Your task to perform on an android device: Search for razer huntsman on amazon, select the first entry, add it to the cart, then select checkout. Image 0: 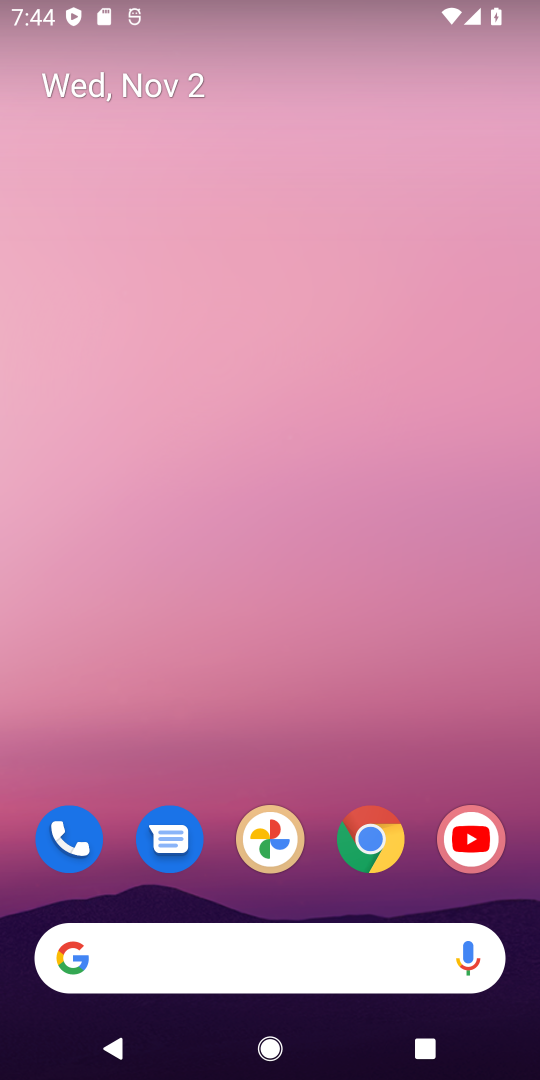
Step 0: click (370, 835)
Your task to perform on an android device: Search for razer huntsman on amazon, select the first entry, add it to the cart, then select checkout. Image 1: 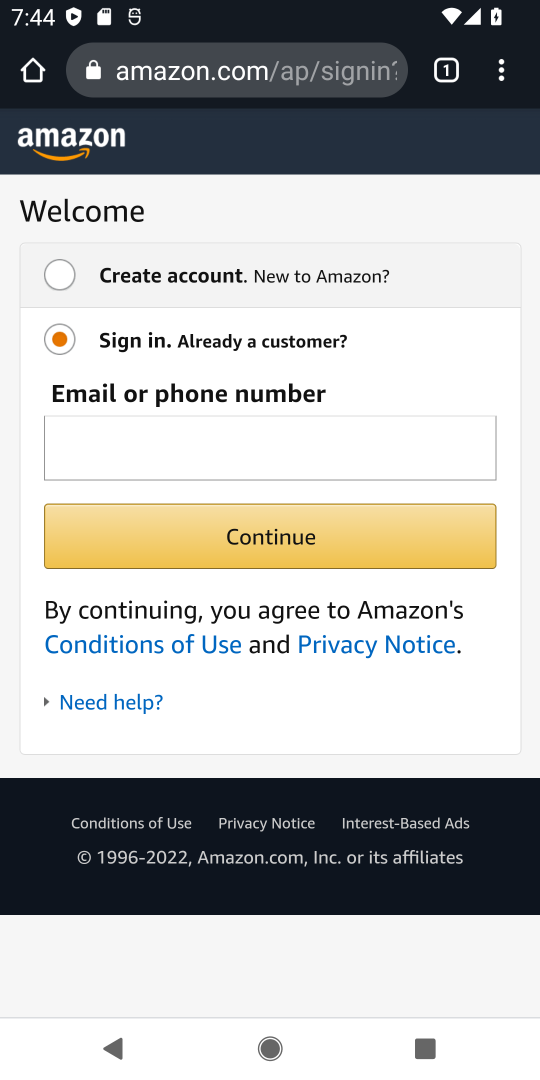
Step 1: press home button
Your task to perform on an android device: Search for razer huntsman on amazon, select the first entry, add it to the cart, then select checkout. Image 2: 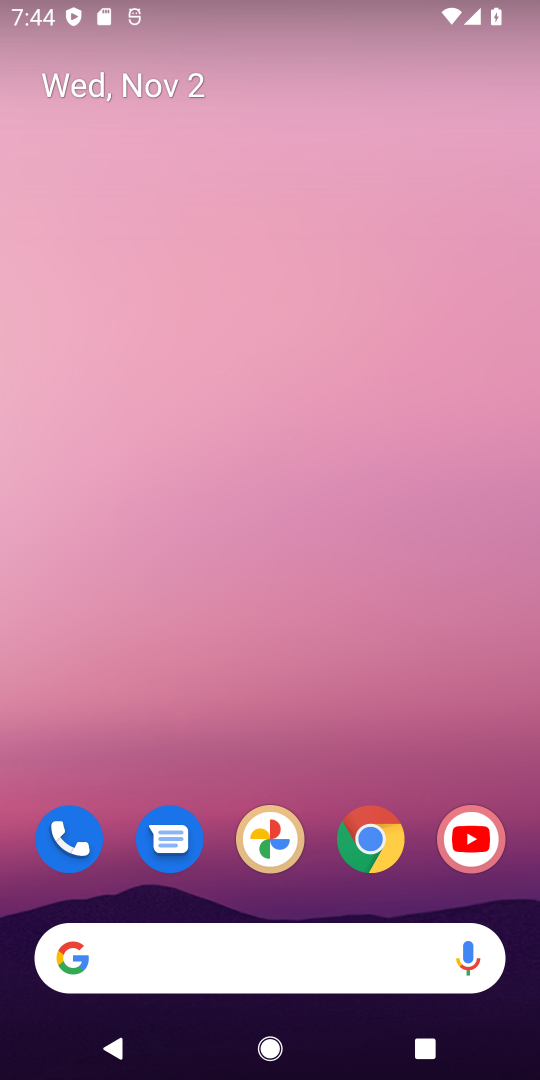
Step 2: click (375, 836)
Your task to perform on an android device: Search for razer huntsman on amazon, select the first entry, add it to the cart, then select checkout. Image 3: 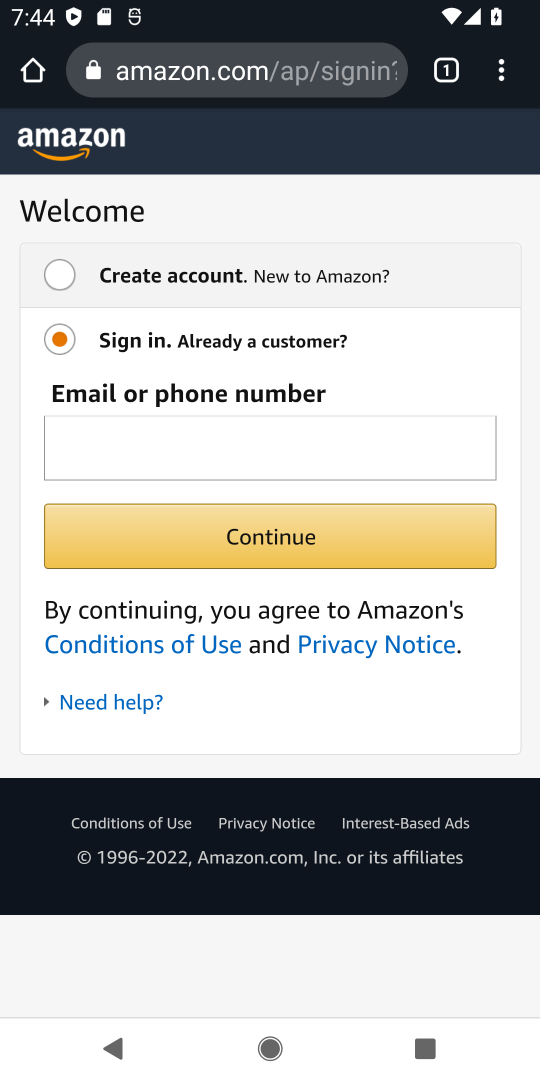
Step 3: click (356, 78)
Your task to perform on an android device: Search for razer huntsman on amazon, select the first entry, add it to the cart, then select checkout. Image 4: 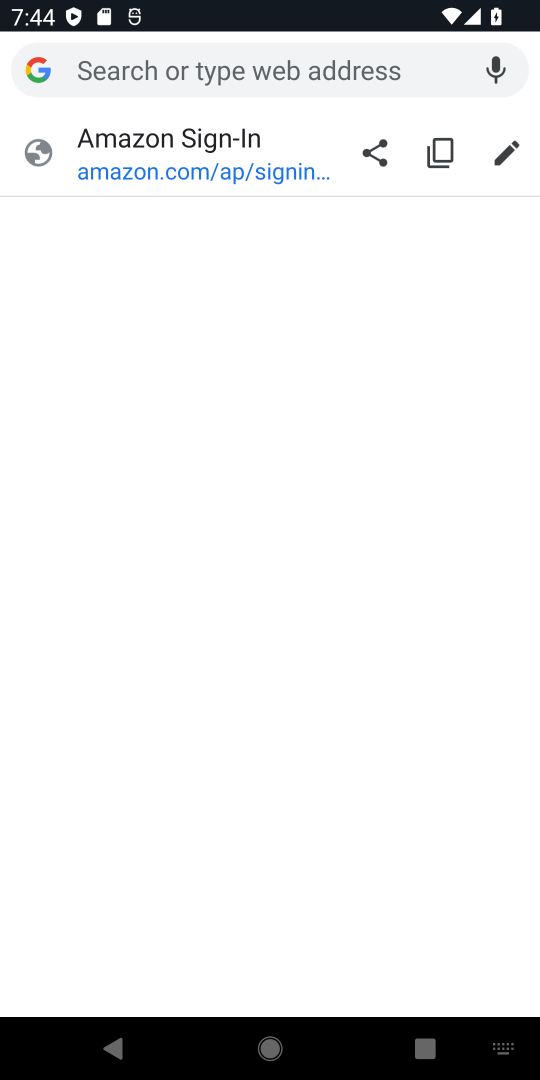
Step 4: type "amazon"
Your task to perform on an android device: Search for razer huntsman on amazon, select the first entry, add it to the cart, then select checkout. Image 5: 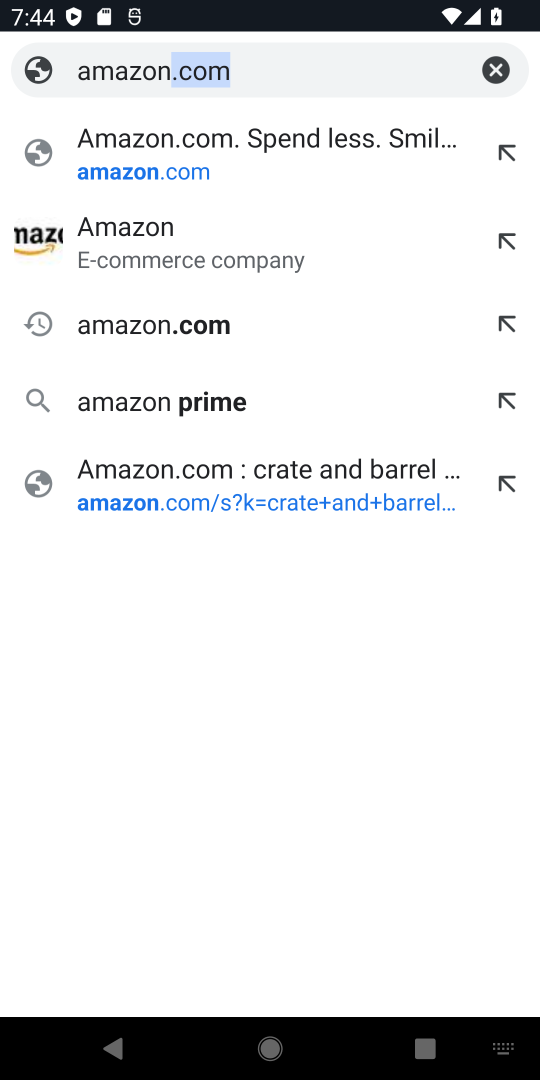
Step 5: click (238, 237)
Your task to perform on an android device: Search for razer huntsman on amazon, select the first entry, add it to the cart, then select checkout. Image 6: 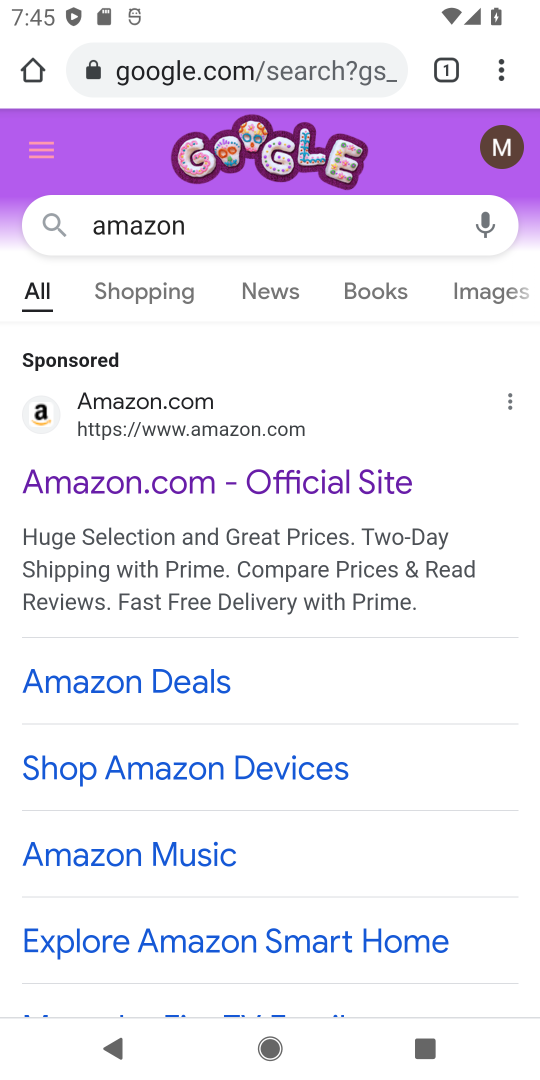
Step 6: drag from (252, 865) to (287, 367)
Your task to perform on an android device: Search for razer huntsman on amazon, select the first entry, add it to the cart, then select checkout. Image 7: 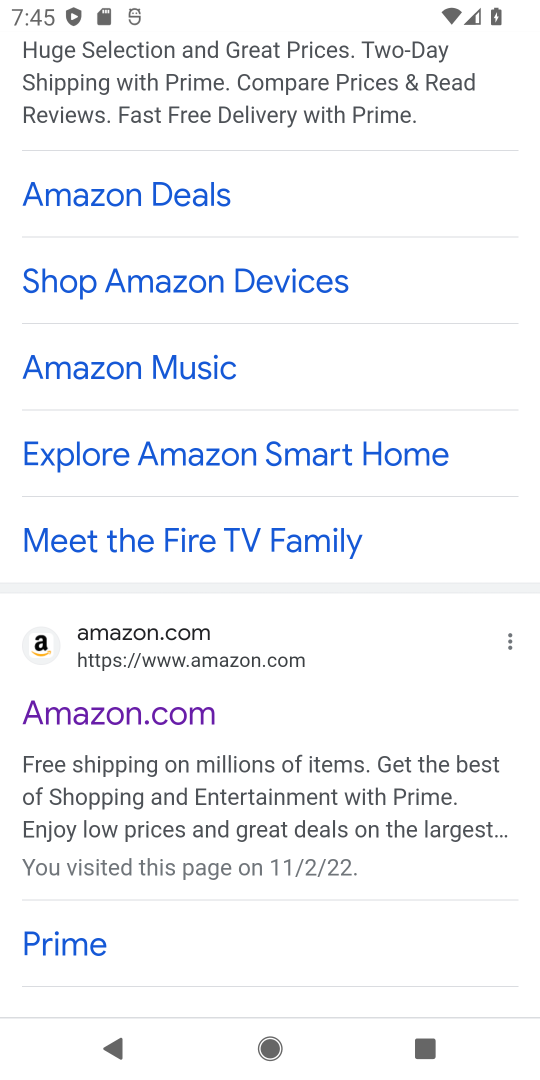
Step 7: click (238, 725)
Your task to perform on an android device: Search for razer huntsman on amazon, select the first entry, add it to the cart, then select checkout. Image 8: 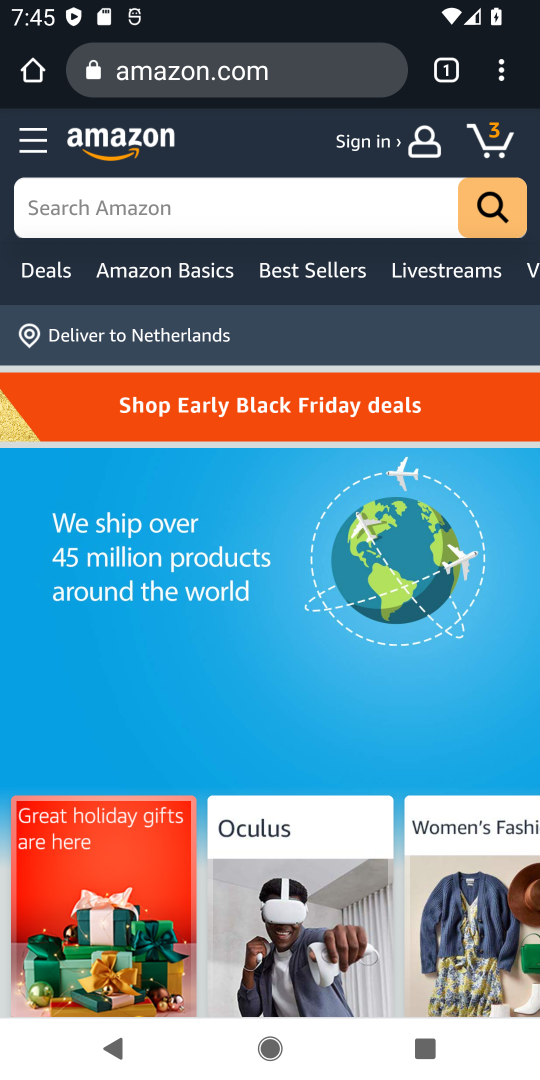
Step 8: click (281, 221)
Your task to perform on an android device: Search for razer huntsman on amazon, select the first entry, add it to the cart, then select checkout. Image 9: 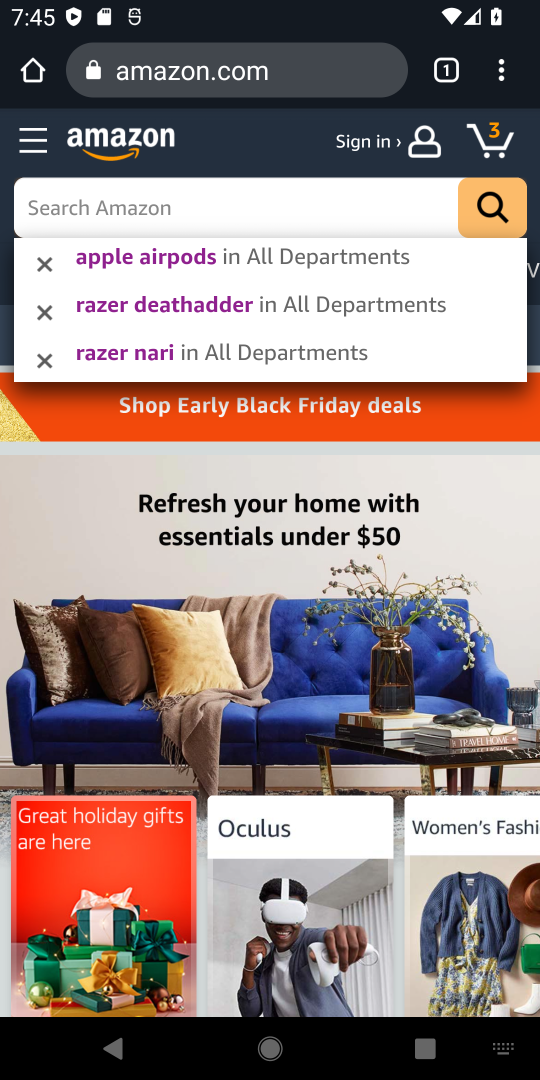
Step 9: type "razer huntsman"
Your task to perform on an android device: Search for razer huntsman on amazon, select the first entry, add it to the cart, then select checkout. Image 10: 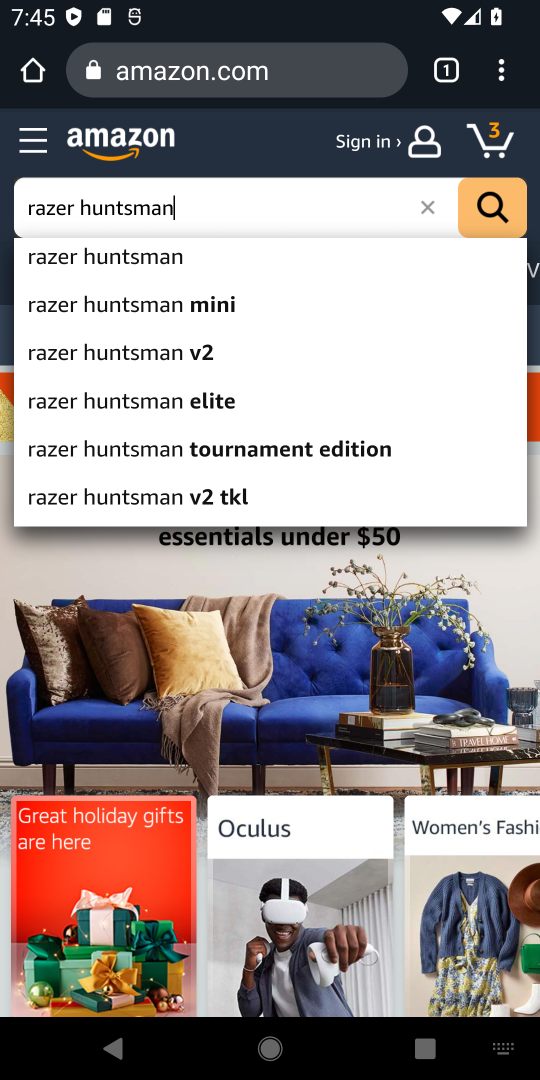
Step 10: click (144, 259)
Your task to perform on an android device: Search for razer huntsman on amazon, select the first entry, add it to the cart, then select checkout. Image 11: 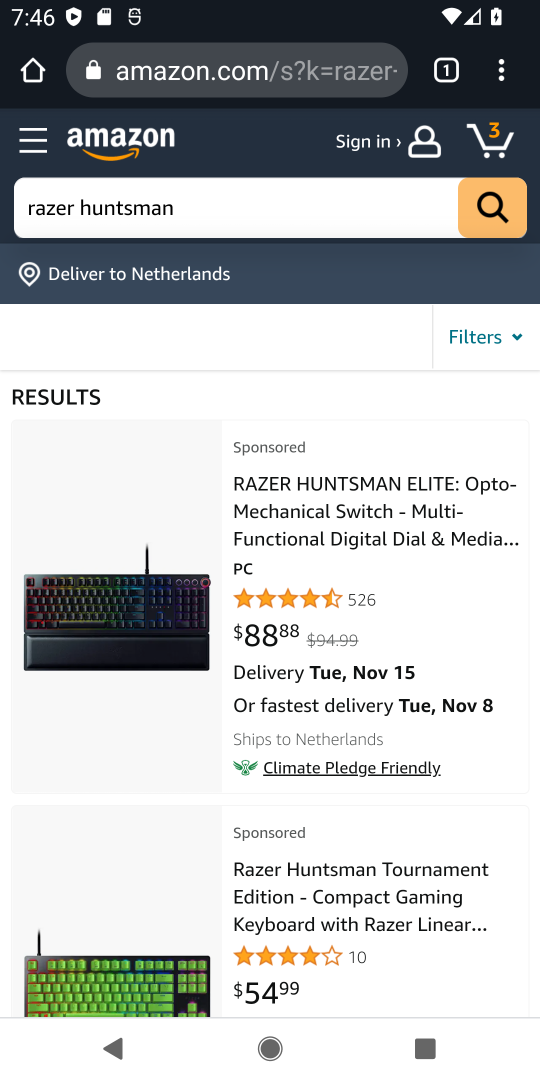
Step 11: drag from (337, 849) to (377, 582)
Your task to perform on an android device: Search for razer huntsman on amazon, select the first entry, add it to the cart, then select checkout. Image 12: 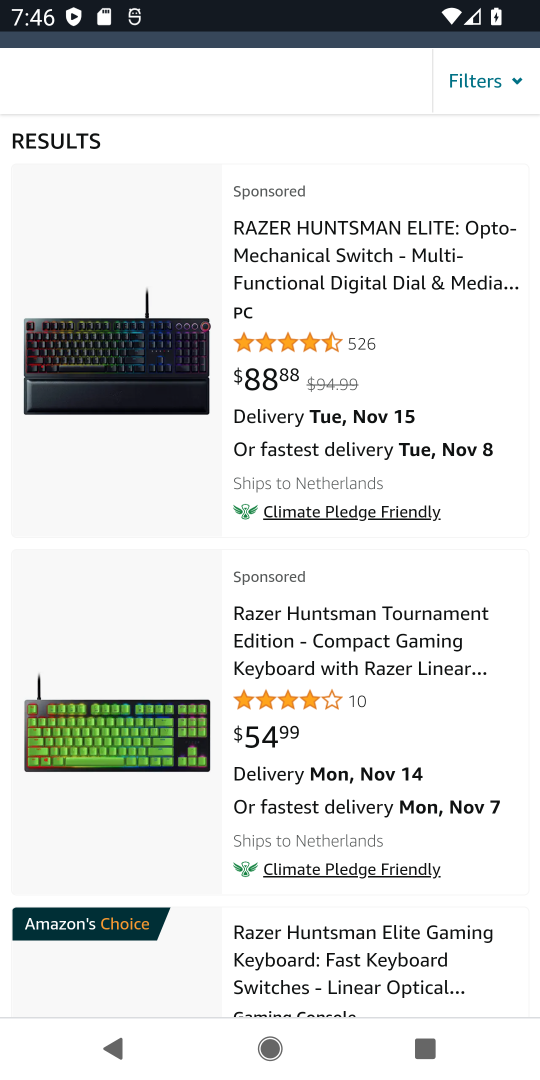
Step 12: click (339, 939)
Your task to perform on an android device: Search for razer huntsman on amazon, select the first entry, add it to the cart, then select checkout. Image 13: 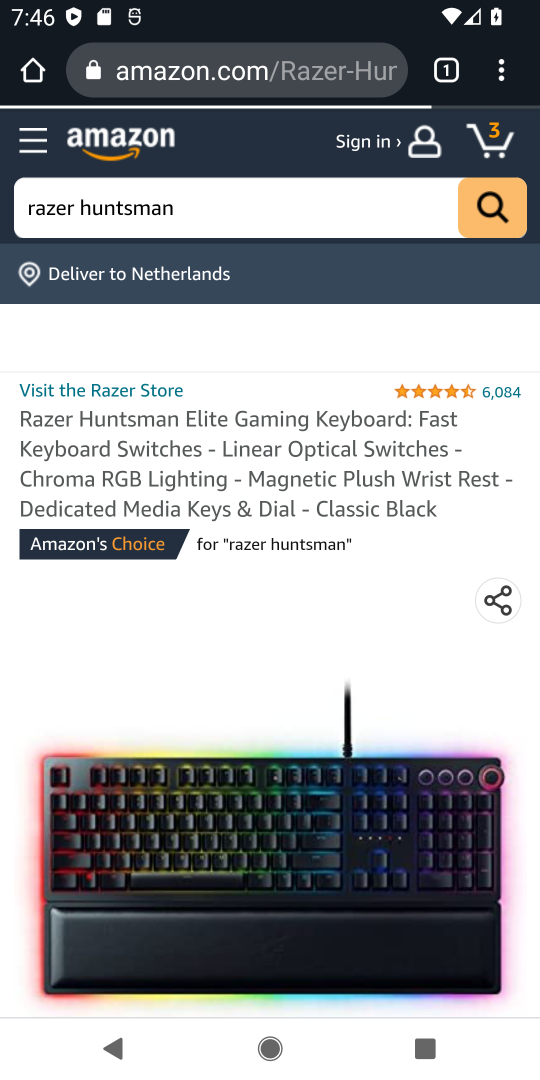
Step 13: drag from (252, 701) to (304, 373)
Your task to perform on an android device: Search for razer huntsman on amazon, select the first entry, add it to the cart, then select checkout. Image 14: 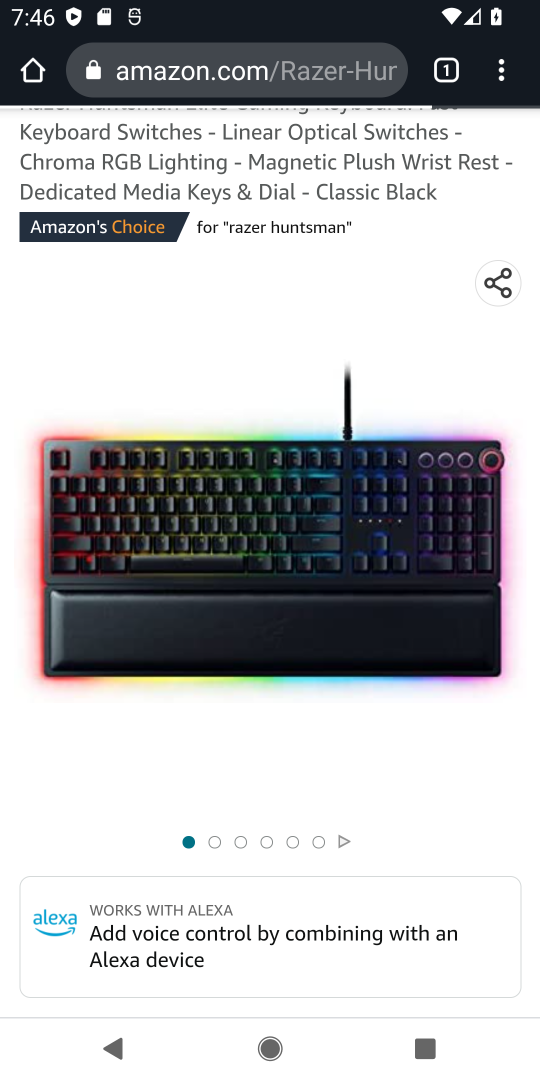
Step 14: drag from (298, 763) to (349, 354)
Your task to perform on an android device: Search for razer huntsman on amazon, select the first entry, add it to the cart, then select checkout. Image 15: 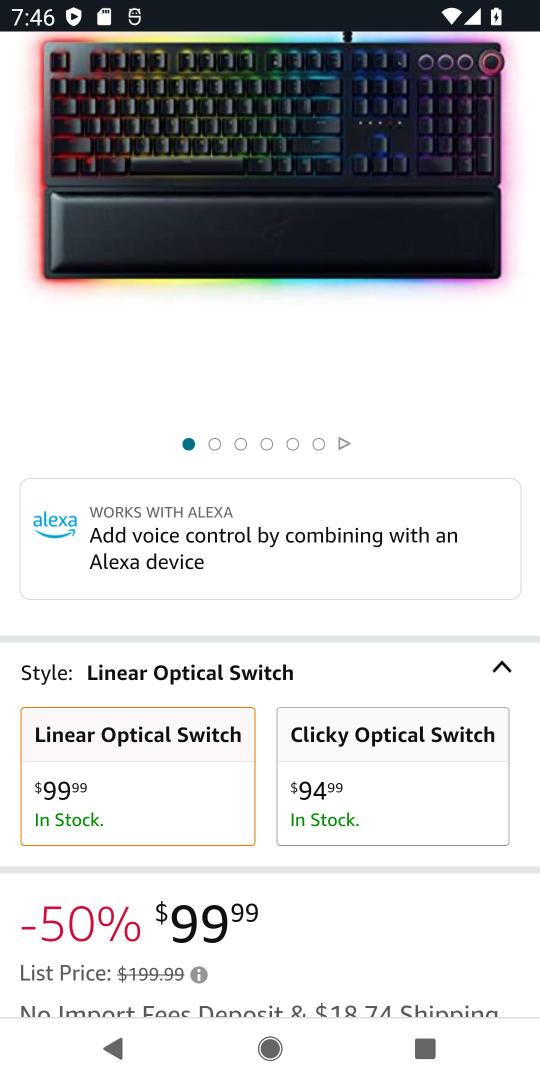
Step 15: drag from (364, 920) to (409, 527)
Your task to perform on an android device: Search for razer huntsman on amazon, select the first entry, add it to the cart, then select checkout. Image 16: 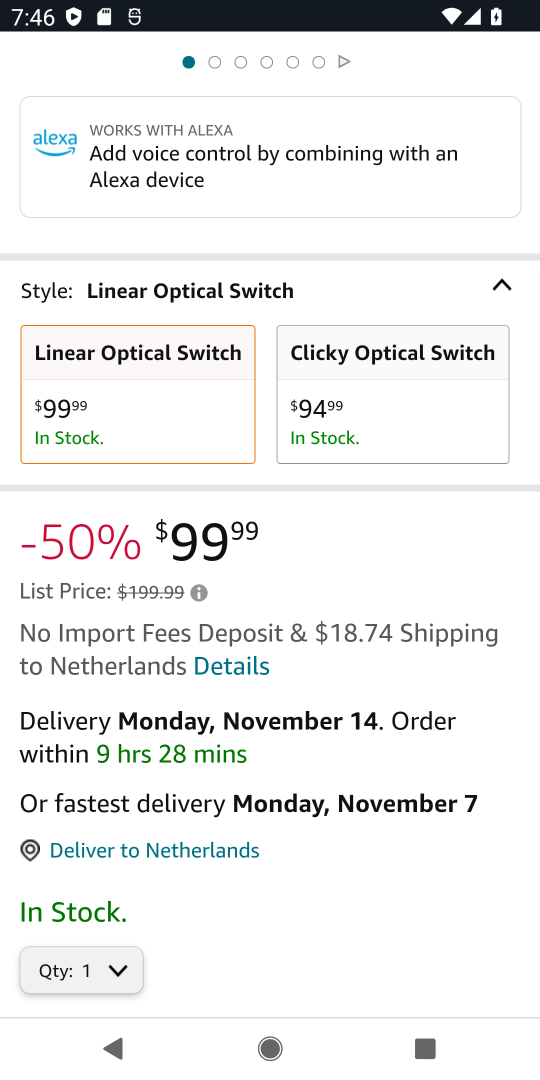
Step 16: drag from (286, 925) to (303, 626)
Your task to perform on an android device: Search for razer huntsman on amazon, select the first entry, add it to the cart, then select checkout. Image 17: 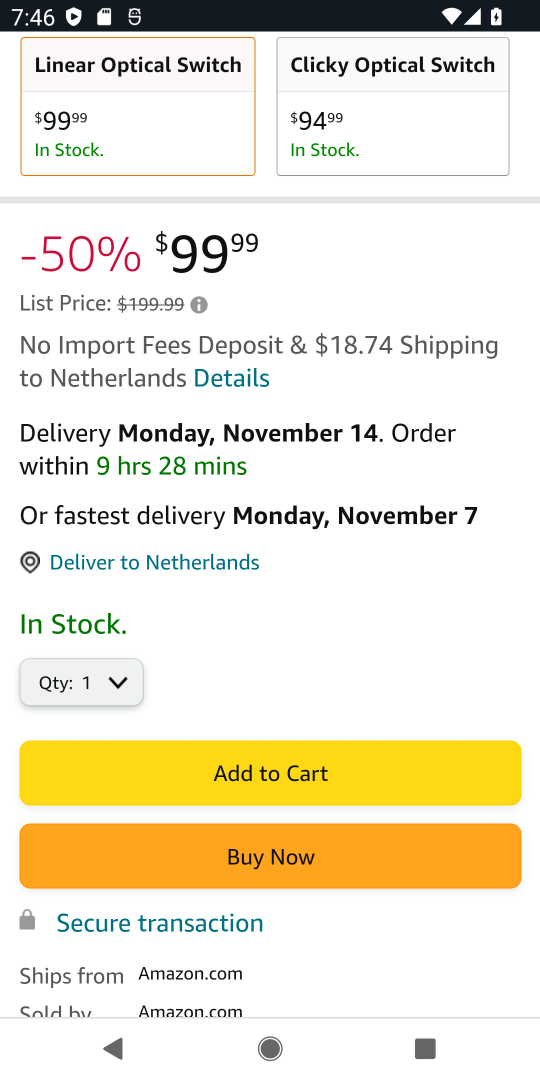
Step 17: click (266, 773)
Your task to perform on an android device: Search for razer huntsman on amazon, select the first entry, add it to the cart, then select checkout. Image 18: 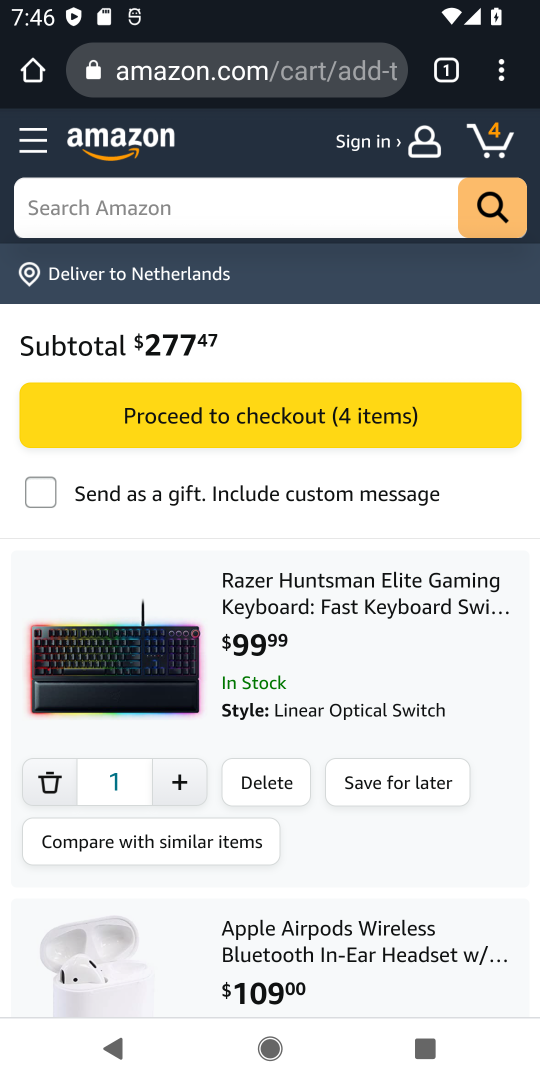
Step 18: click (336, 415)
Your task to perform on an android device: Search for razer huntsman on amazon, select the first entry, add it to the cart, then select checkout. Image 19: 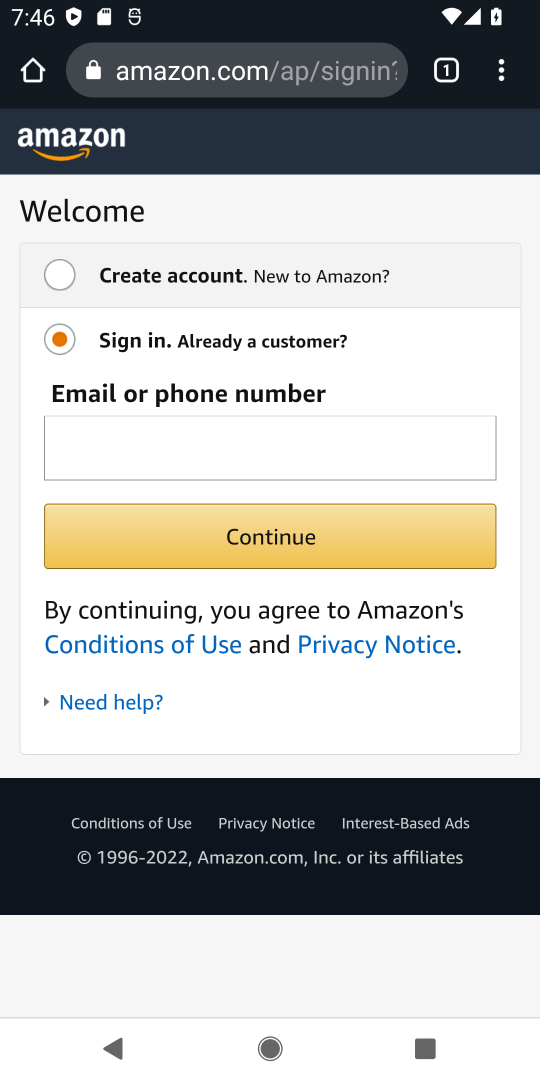
Step 19: task complete